Your task to perform on an android device: Open calendar and show me the third week of next month Image 0: 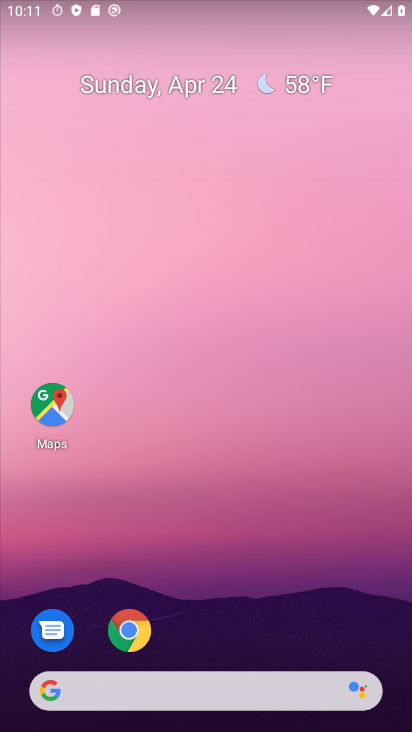
Step 0: drag from (235, 644) to (272, 151)
Your task to perform on an android device: Open calendar and show me the third week of next month Image 1: 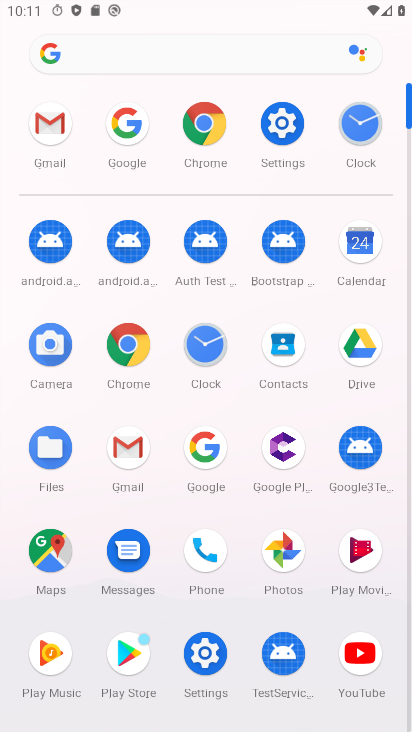
Step 1: click (362, 234)
Your task to perform on an android device: Open calendar and show me the third week of next month Image 2: 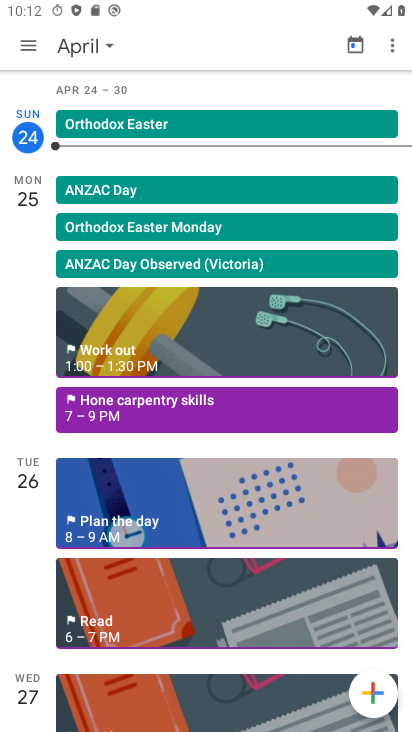
Step 2: click (96, 43)
Your task to perform on an android device: Open calendar and show me the third week of next month Image 3: 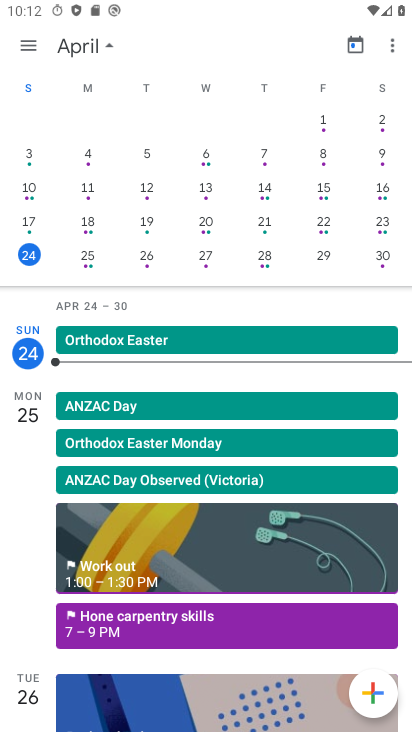
Step 3: drag from (306, 210) to (42, 203)
Your task to perform on an android device: Open calendar and show me the third week of next month Image 4: 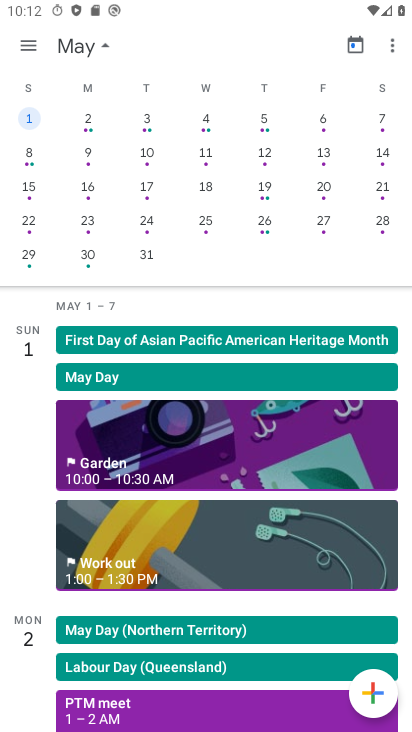
Step 4: click (35, 191)
Your task to perform on an android device: Open calendar and show me the third week of next month Image 5: 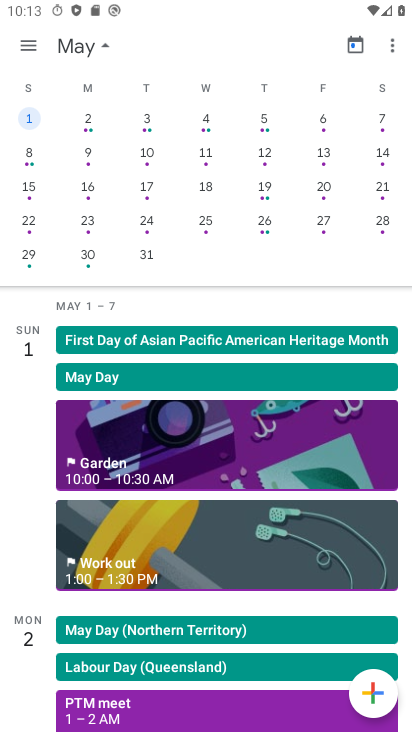
Step 5: click (30, 188)
Your task to perform on an android device: Open calendar and show me the third week of next month Image 6: 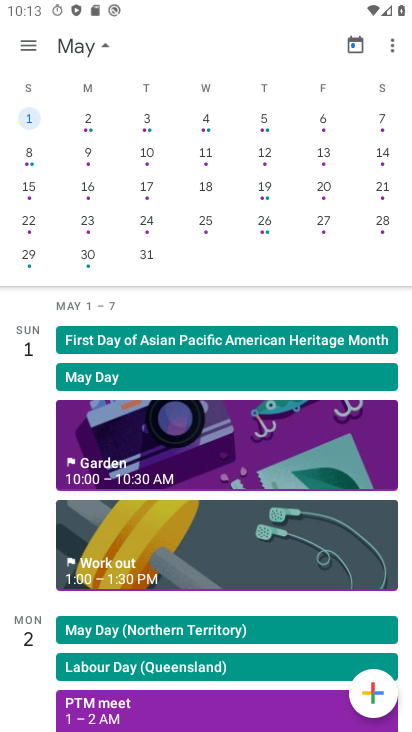
Step 6: click (33, 196)
Your task to perform on an android device: Open calendar and show me the third week of next month Image 7: 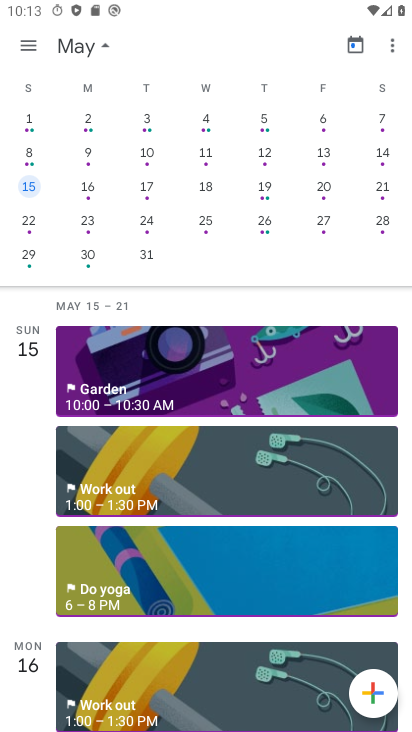
Step 7: task complete